Your task to perform on an android device: create a new album in the google photos Image 0: 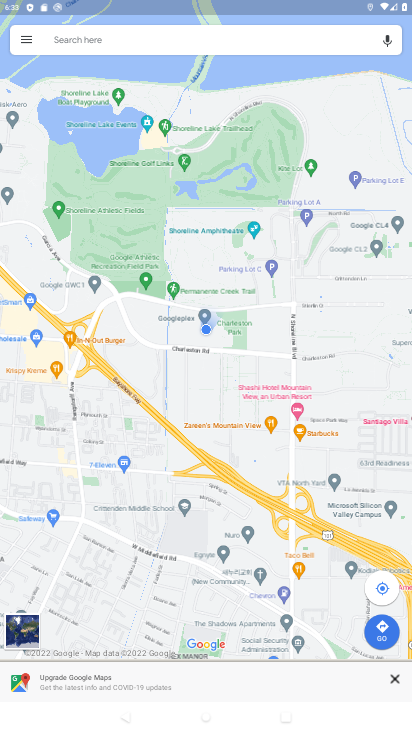
Step 0: press home button
Your task to perform on an android device: create a new album in the google photos Image 1: 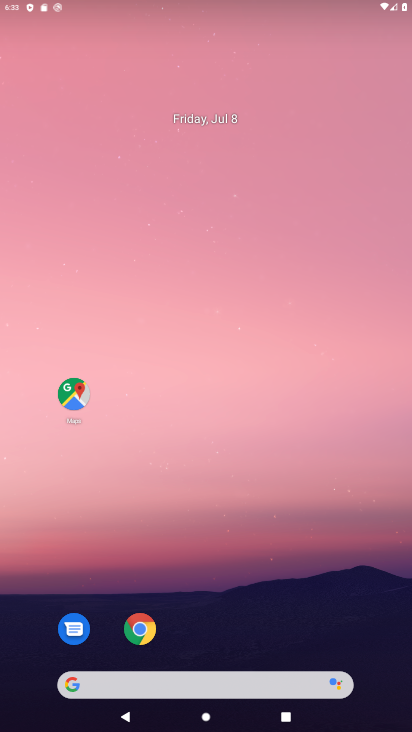
Step 1: press home button
Your task to perform on an android device: create a new album in the google photos Image 2: 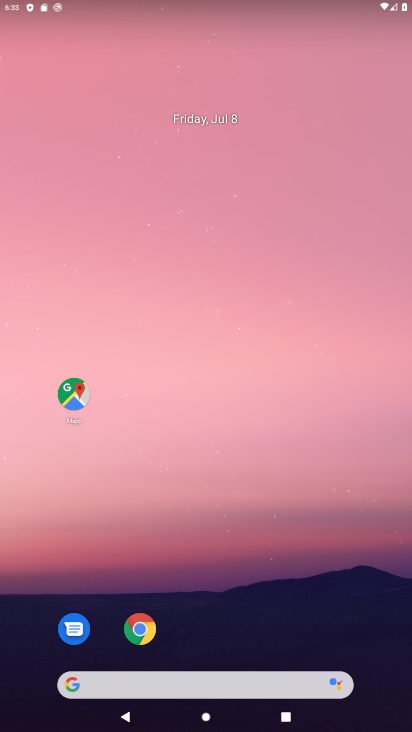
Step 2: drag from (381, 684) to (312, 55)
Your task to perform on an android device: create a new album in the google photos Image 3: 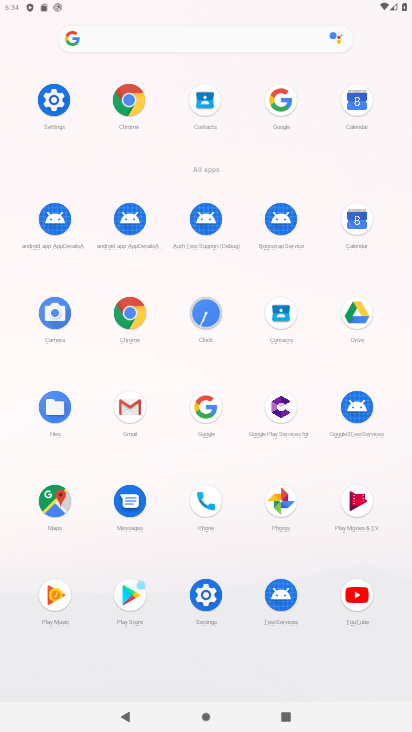
Step 3: click (285, 502)
Your task to perform on an android device: create a new album in the google photos Image 4: 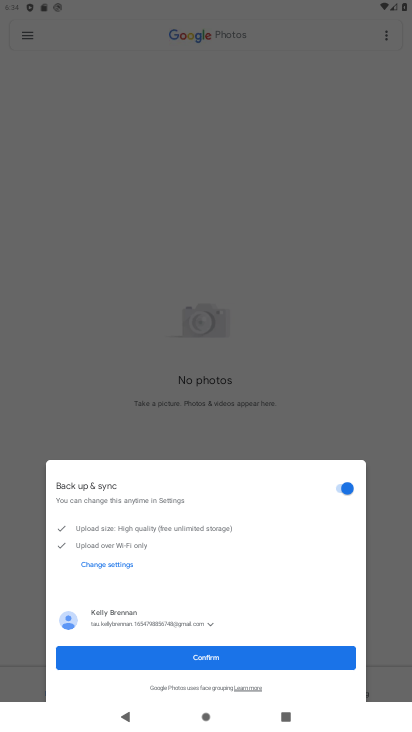
Step 4: click (163, 645)
Your task to perform on an android device: create a new album in the google photos Image 5: 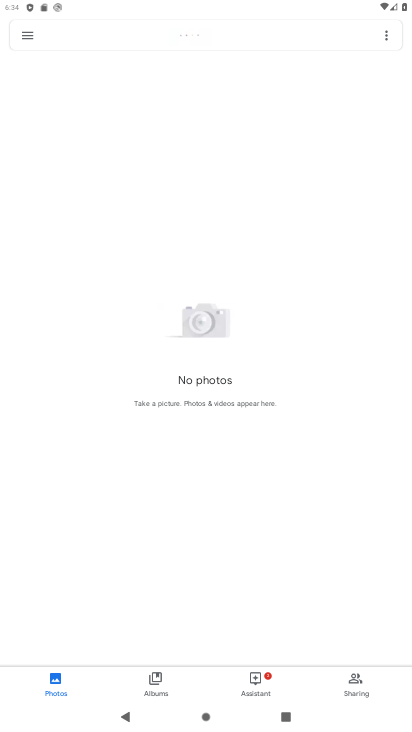
Step 5: click (154, 684)
Your task to perform on an android device: create a new album in the google photos Image 6: 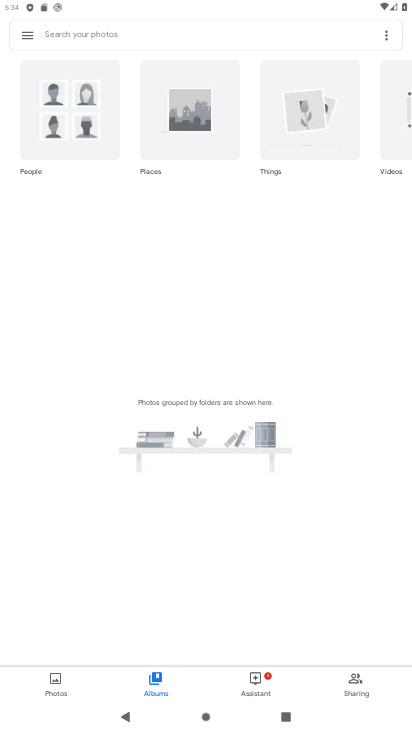
Step 6: task complete